Your task to perform on an android device: open a bookmark in the chrome app Image 0: 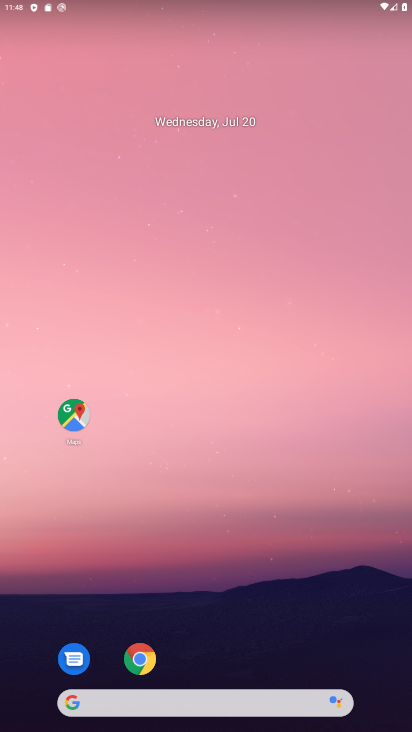
Step 0: drag from (279, 477) to (265, 87)
Your task to perform on an android device: open a bookmark in the chrome app Image 1: 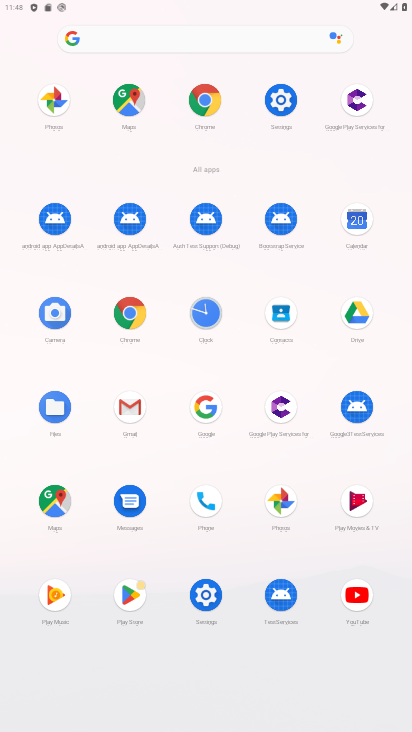
Step 1: click (122, 311)
Your task to perform on an android device: open a bookmark in the chrome app Image 2: 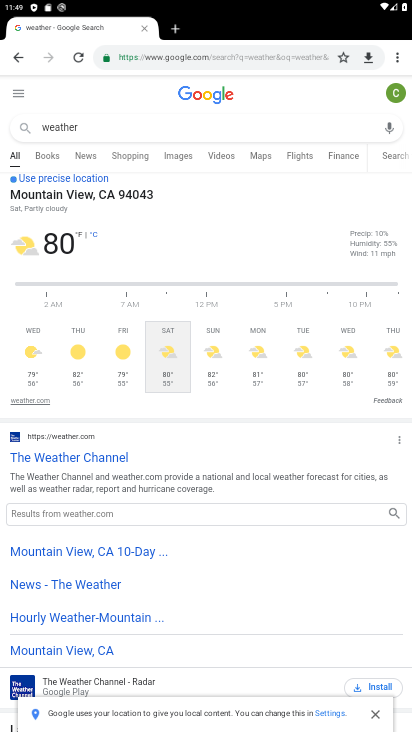
Step 2: drag from (398, 53) to (284, 119)
Your task to perform on an android device: open a bookmark in the chrome app Image 3: 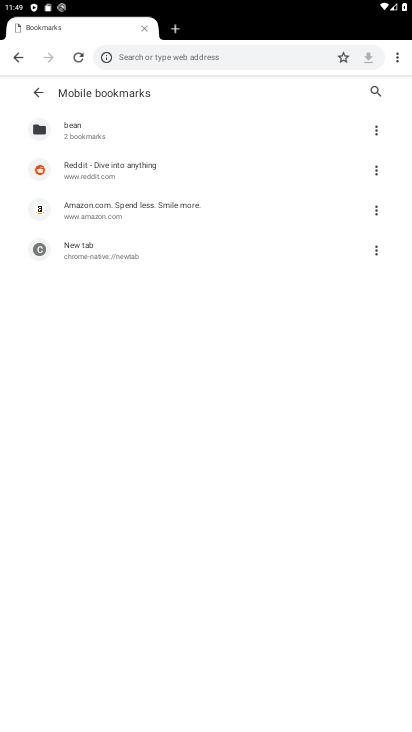
Step 3: click (98, 177)
Your task to perform on an android device: open a bookmark in the chrome app Image 4: 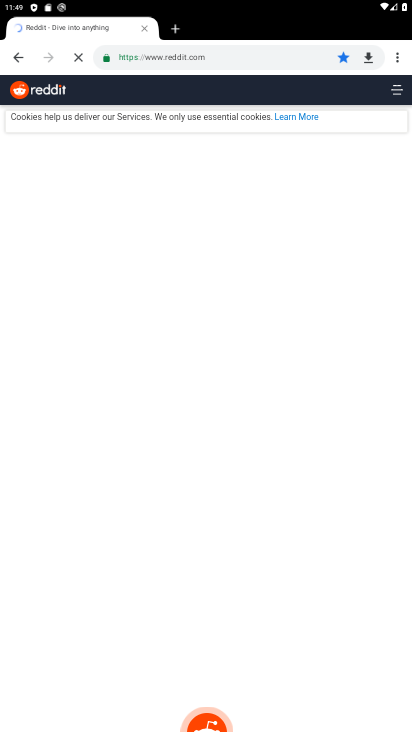
Step 4: task complete